Your task to perform on an android device: install app "eBay: The shopping marketplace" Image 0: 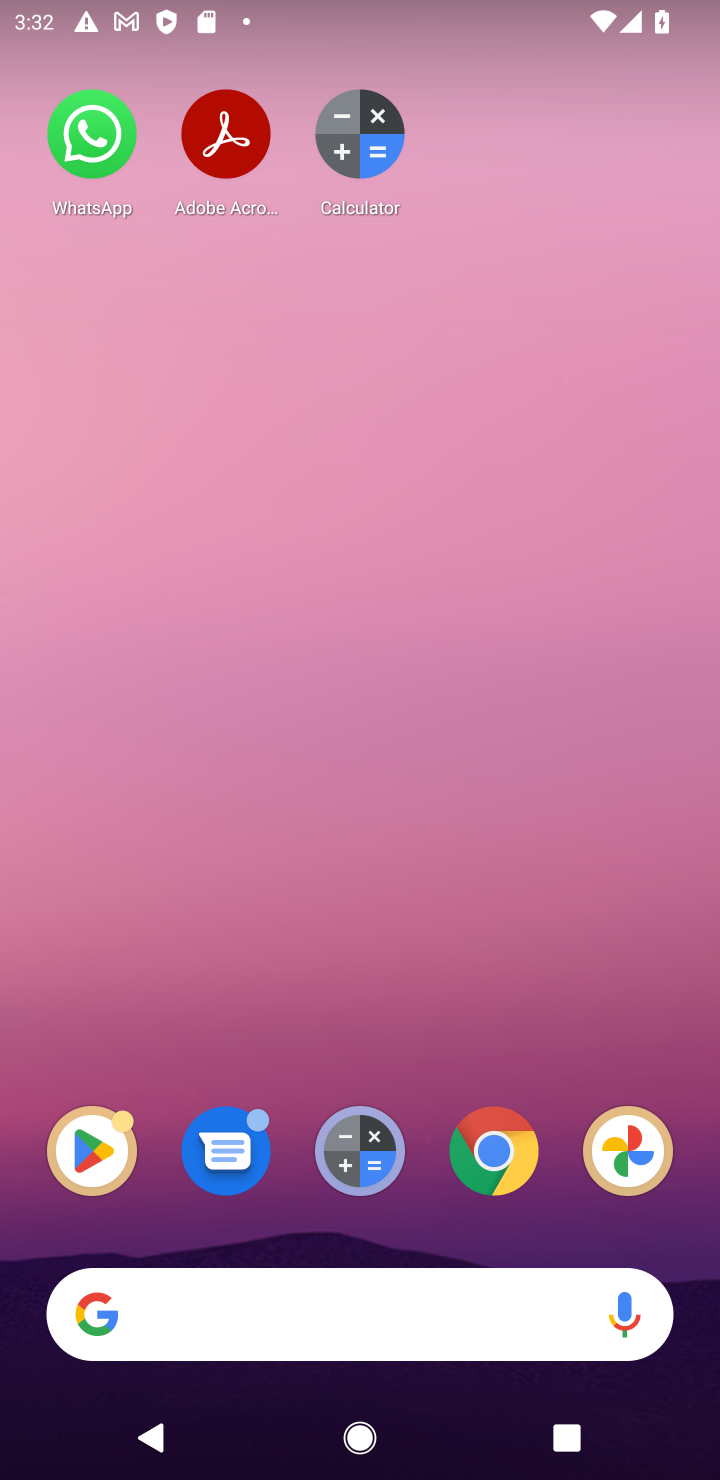
Step 0: drag from (567, 1068) to (557, 2)
Your task to perform on an android device: install app "eBay: The shopping marketplace" Image 1: 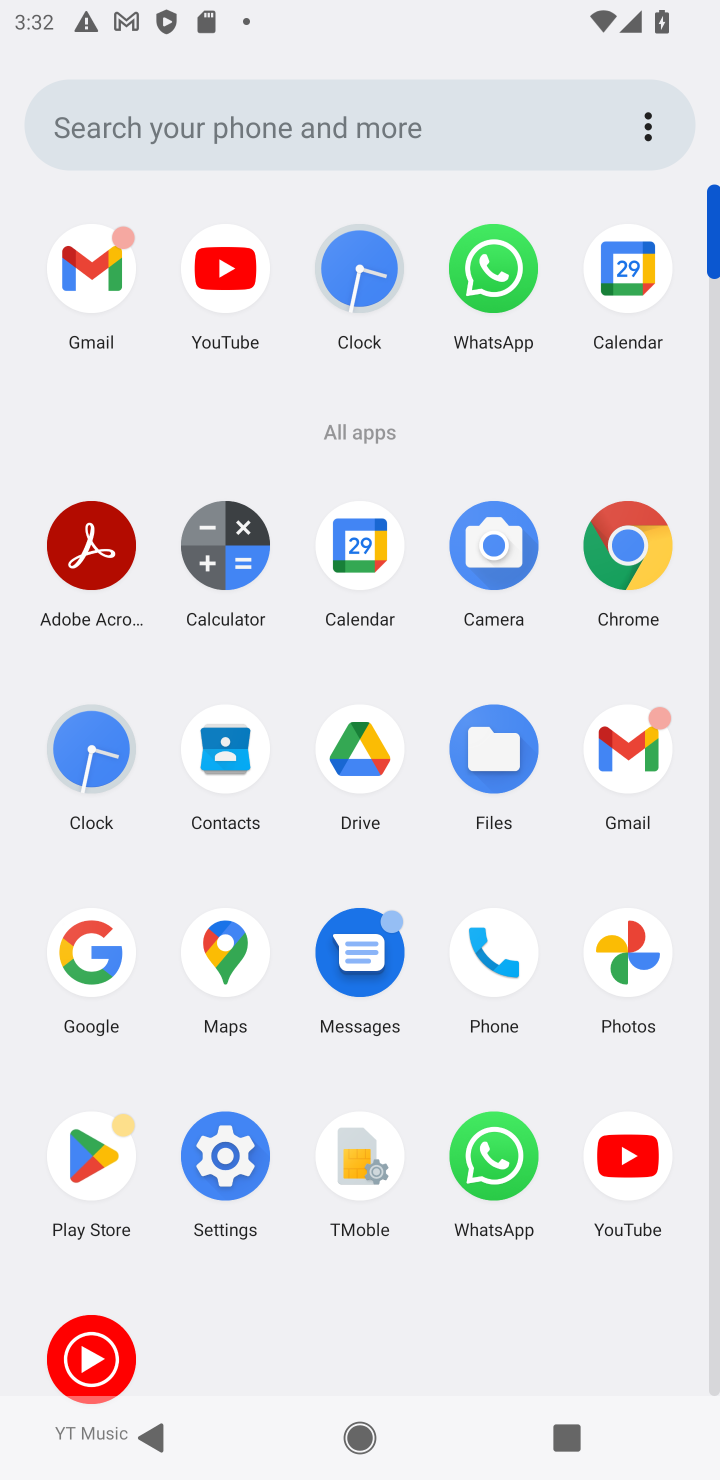
Step 1: click (79, 1193)
Your task to perform on an android device: install app "eBay: The shopping marketplace" Image 2: 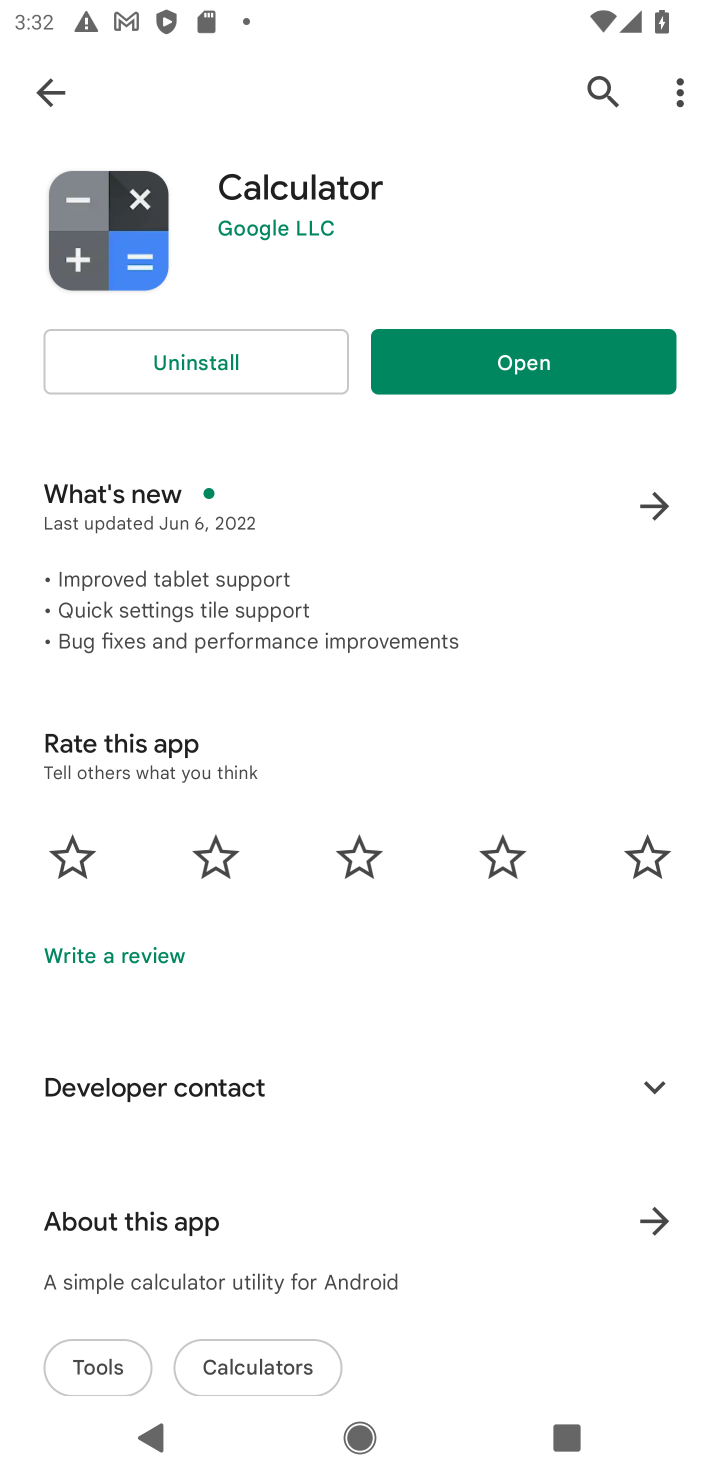
Step 2: click (596, 102)
Your task to perform on an android device: install app "eBay: The shopping marketplace" Image 3: 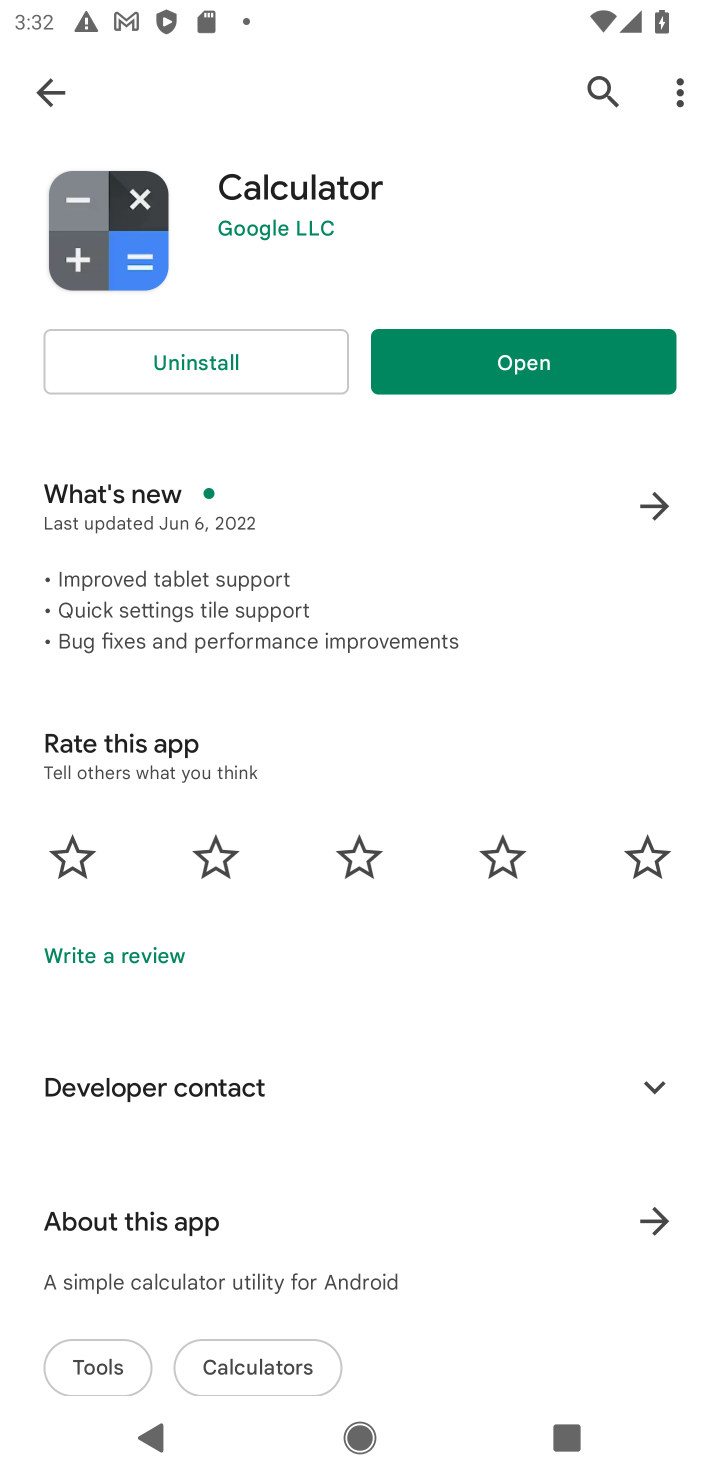
Step 3: click (604, 81)
Your task to perform on an android device: install app "eBay: The shopping marketplace" Image 4: 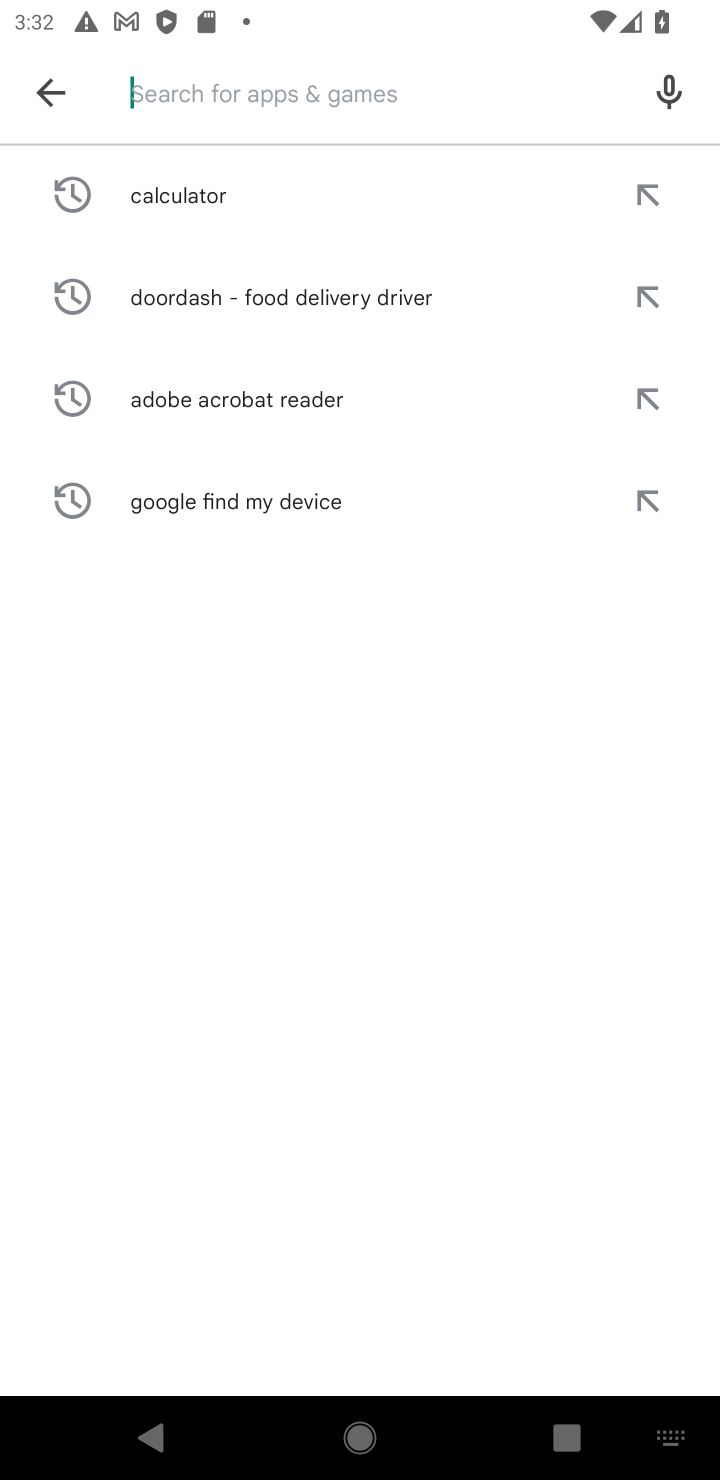
Step 4: type "eBay"
Your task to perform on an android device: install app "eBay: The shopping marketplace" Image 5: 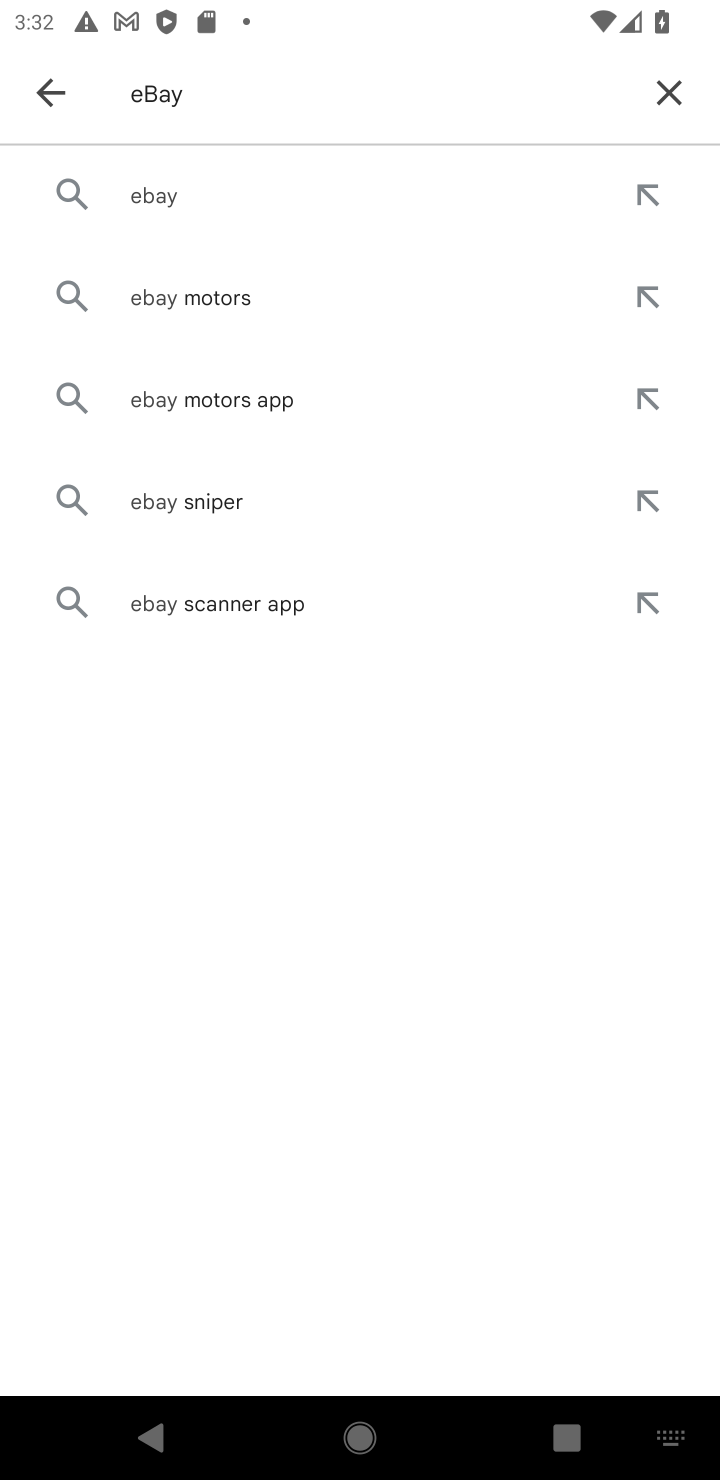
Step 5: click (168, 213)
Your task to perform on an android device: install app "eBay: The shopping marketplace" Image 6: 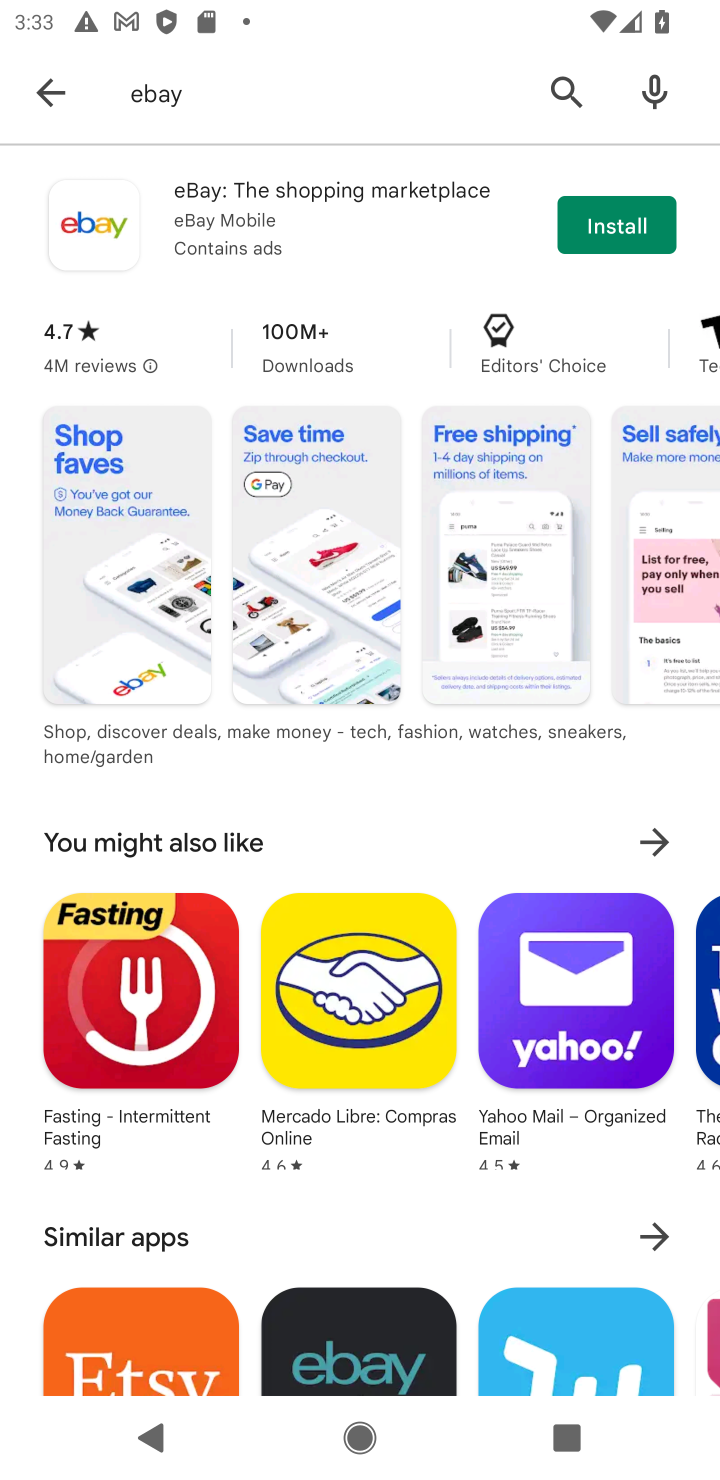
Step 6: click (632, 234)
Your task to perform on an android device: install app "eBay: The shopping marketplace" Image 7: 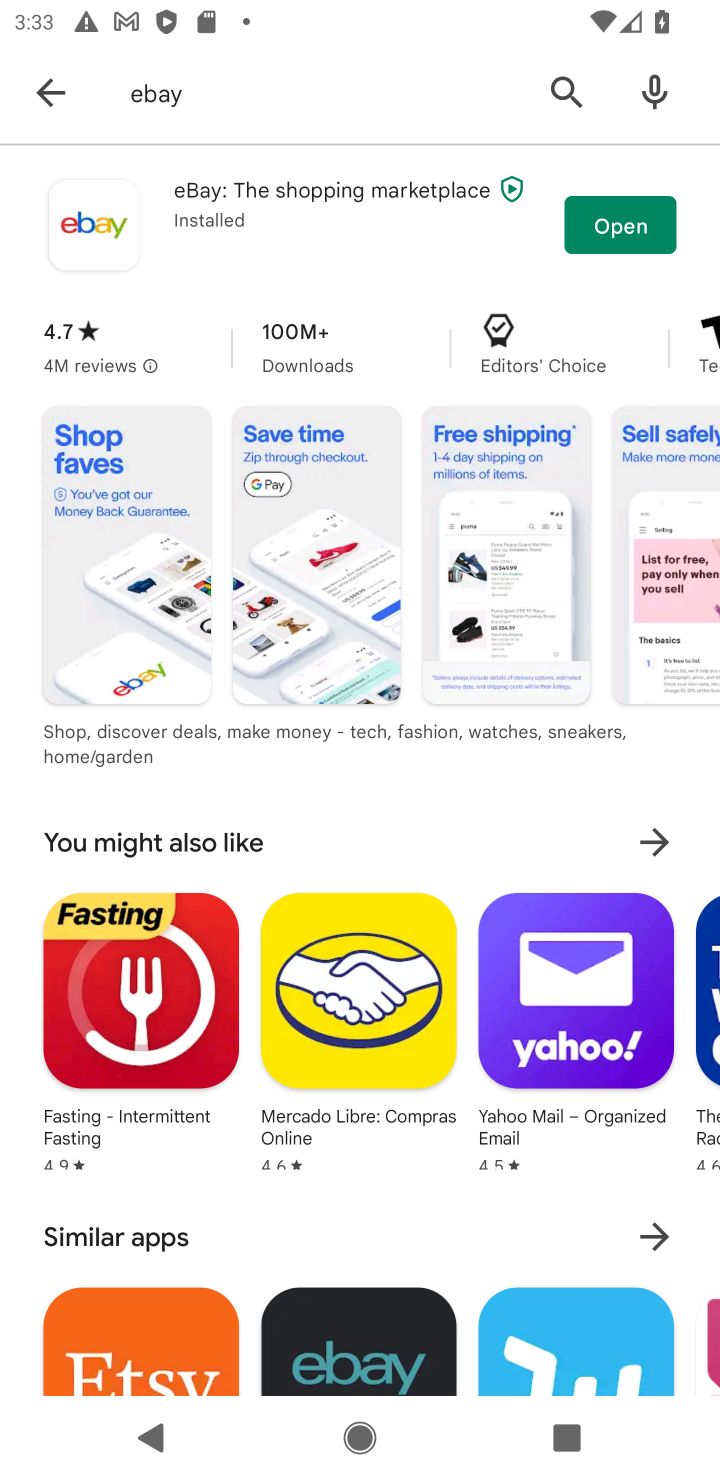
Step 7: task complete